Your task to perform on an android device: How big is a dinosaur? Image 0: 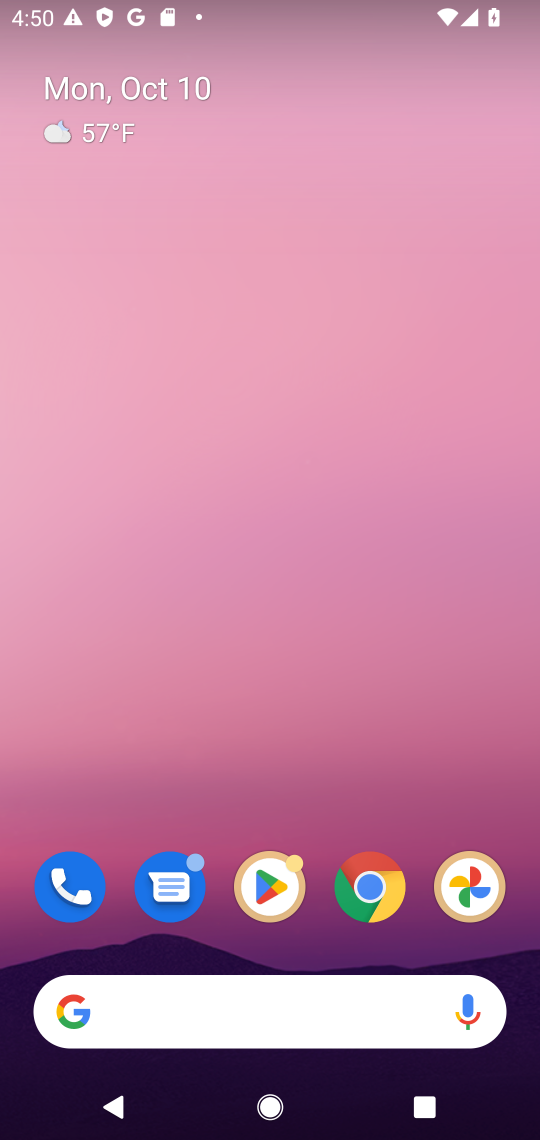
Step 0: click (382, 888)
Your task to perform on an android device: How big is a dinosaur? Image 1: 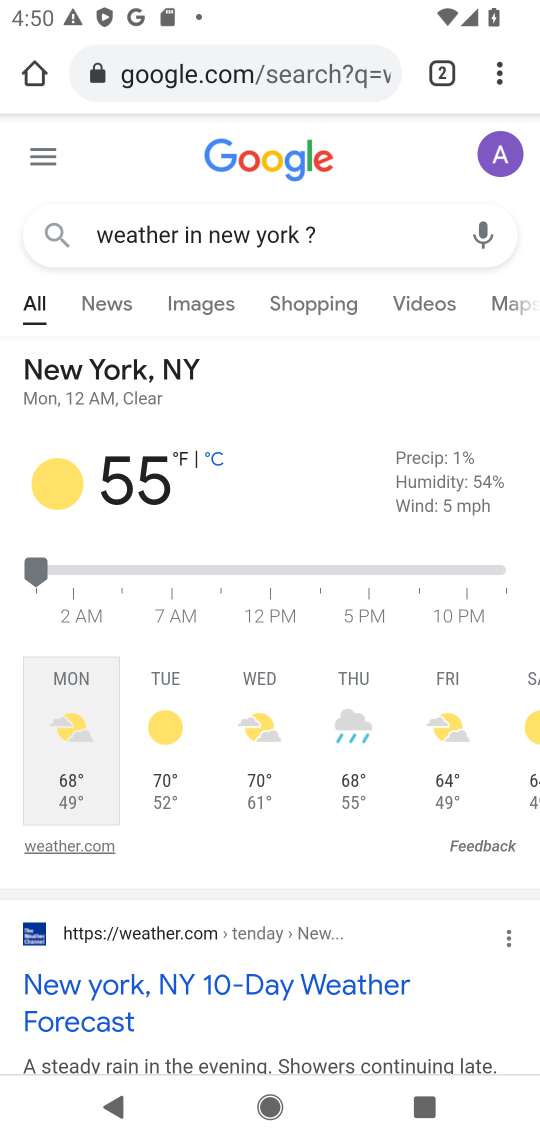
Step 1: click (286, 74)
Your task to perform on an android device: How big is a dinosaur? Image 2: 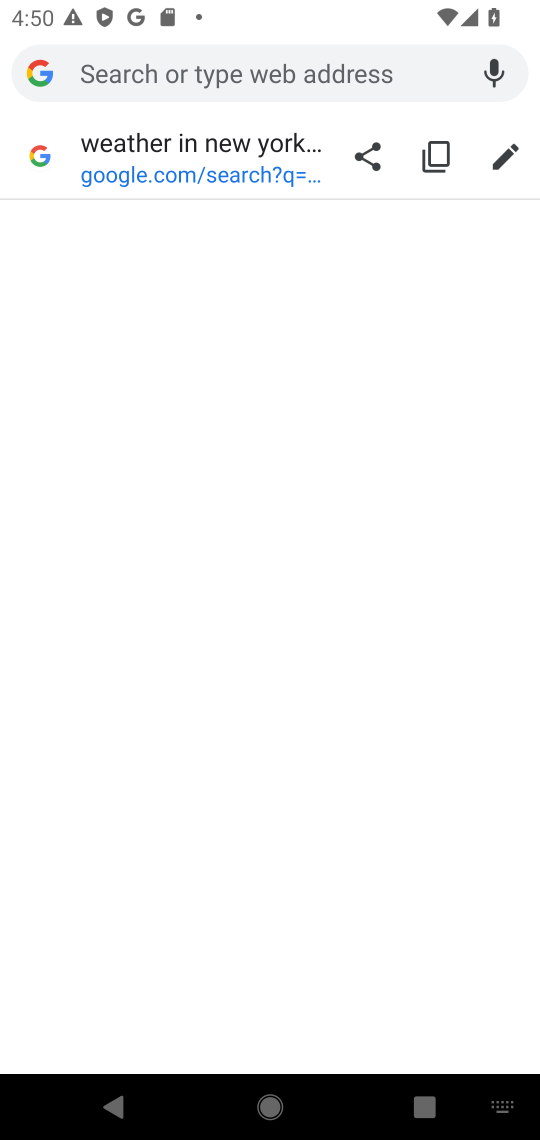
Step 2: type "How big is a dinosaur?"
Your task to perform on an android device: How big is a dinosaur? Image 3: 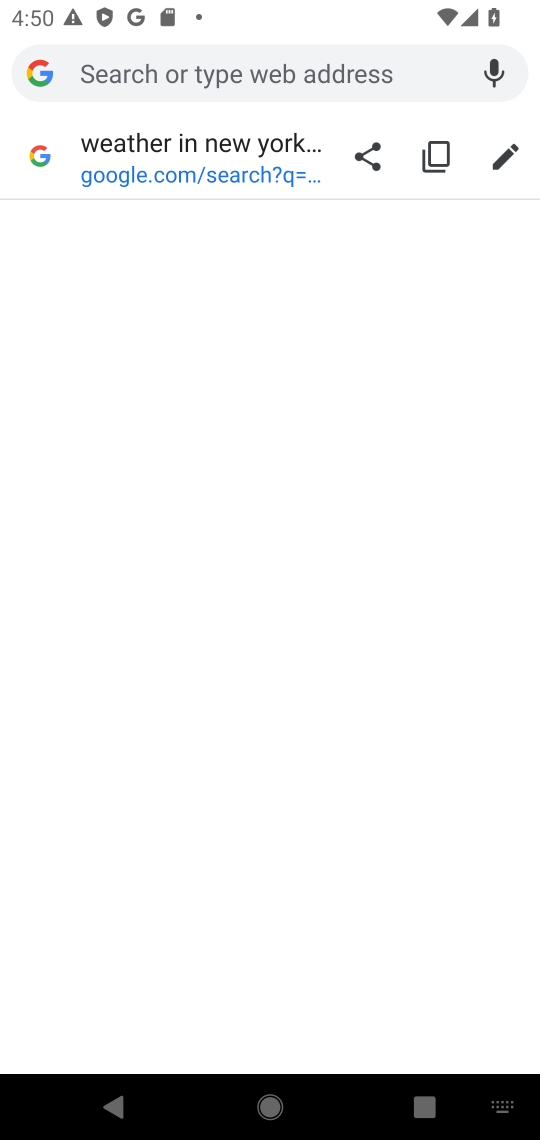
Step 3: click (344, 70)
Your task to perform on an android device: How big is a dinosaur? Image 4: 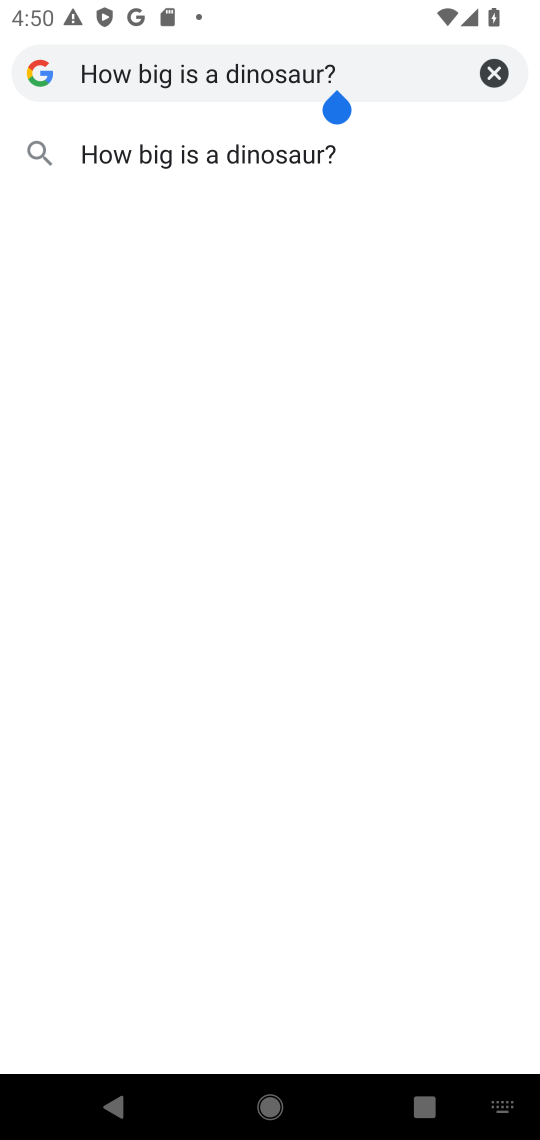
Step 4: click (273, 153)
Your task to perform on an android device: How big is a dinosaur? Image 5: 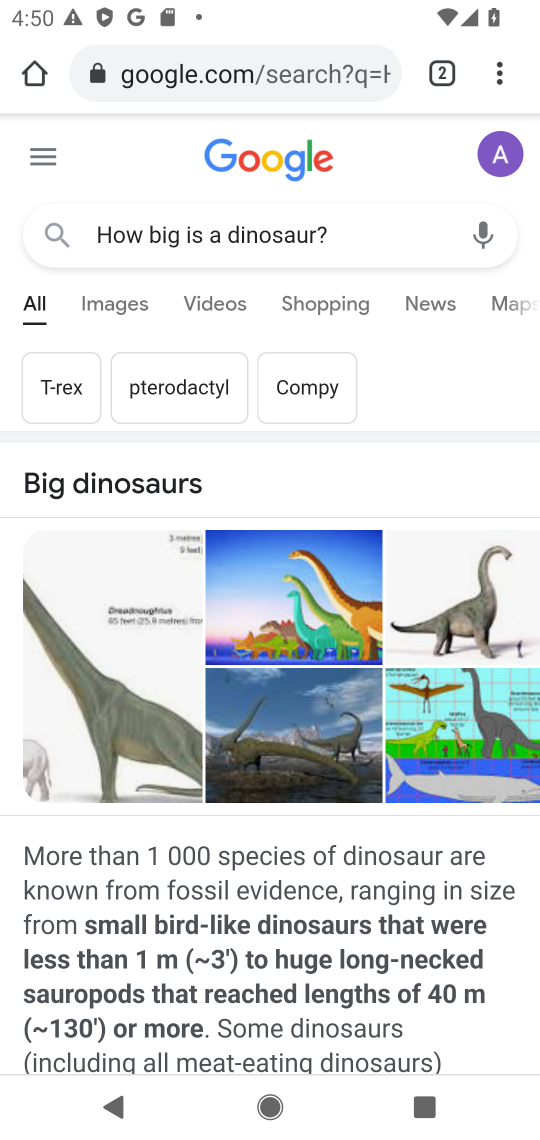
Step 5: task complete